Your task to perform on an android device: open a new tab in the chrome app Image 0: 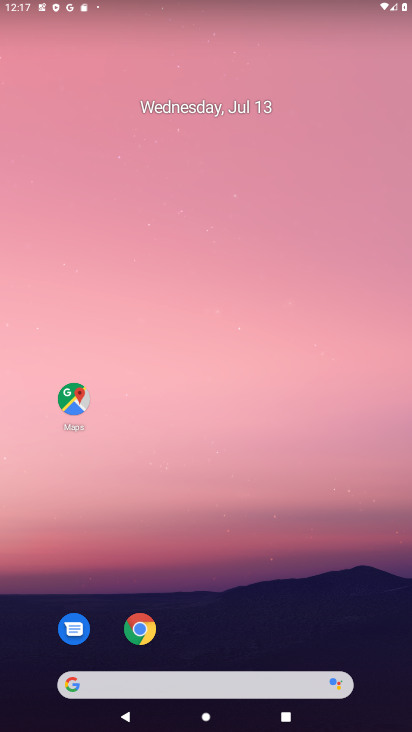
Step 0: click (197, 298)
Your task to perform on an android device: open a new tab in the chrome app Image 1: 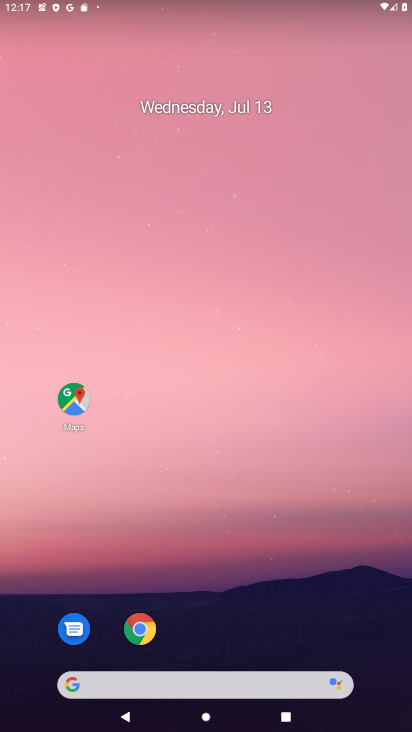
Step 1: drag from (260, 603) to (254, 234)
Your task to perform on an android device: open a new tab in the chrome app Image 2: 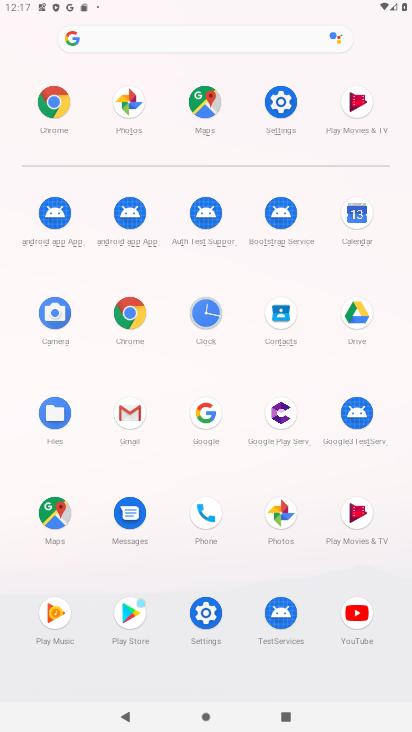
Step 2: click (50, 88)
Your task to perform on an android device: open a new tab in the chrome app Image 3: 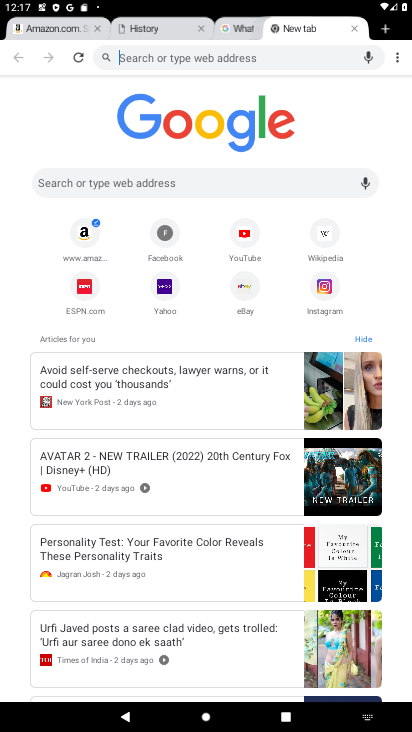
Step 3: click (396, 46)
Your task to perform on an android device: open a new tab in the chrome app Image 4: 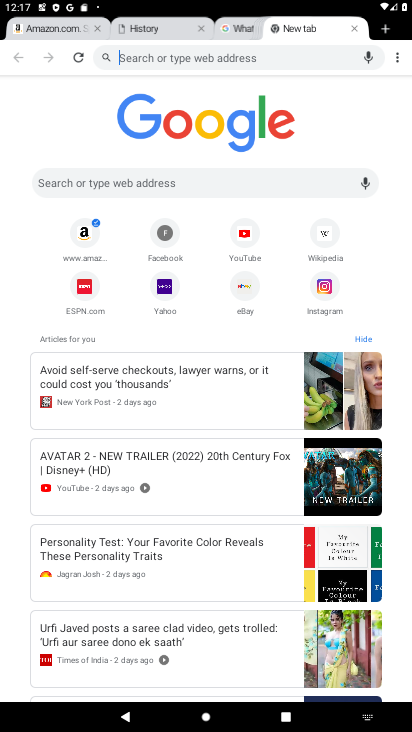
Step 4: click (380, 30)
Your task to perform on an android device: open a new tab in the chrome app Image 5: 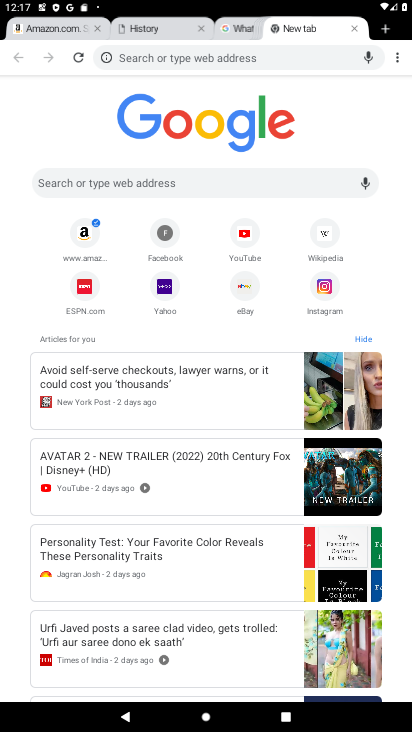
Step 5: task complete